Your task to perform on an android device: turn on javascript in the chrome app Image 0: 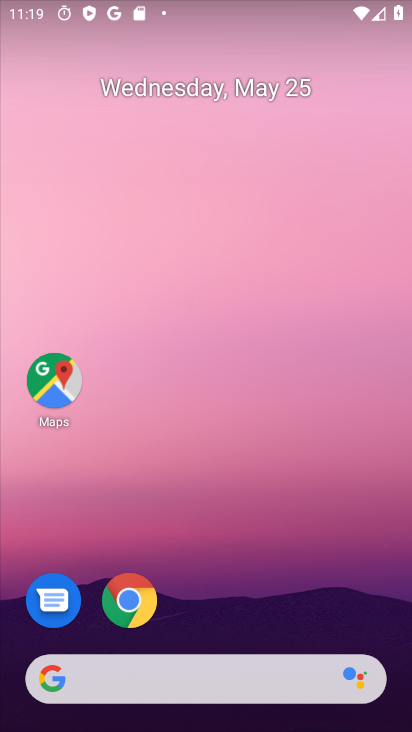
Step 0: drag from (198, 611) to (208, 73)
Your task to perform on an android device: turn on javascript in the chrome app Image 1: 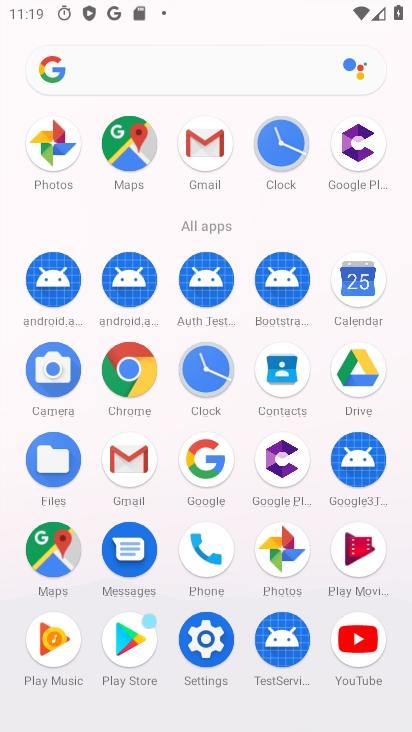
Step 1: click (120, 380)
Your task to perform on an android device: turn on javascript in the chrome app Image 2: 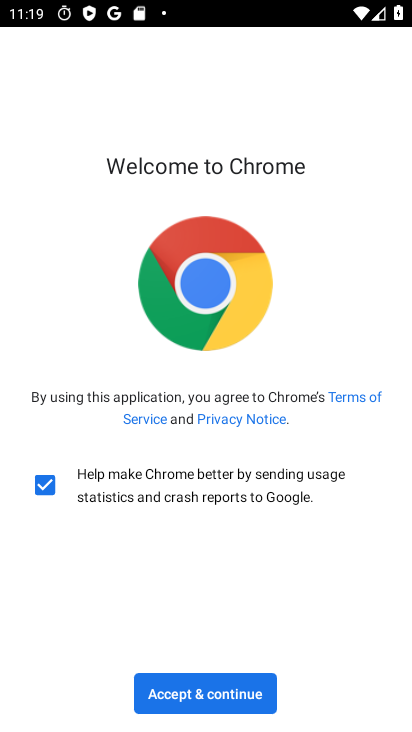
Step 2: click (263, 691)
Your task to perform on an android device: turn on javascript in the chrome app Image 3: 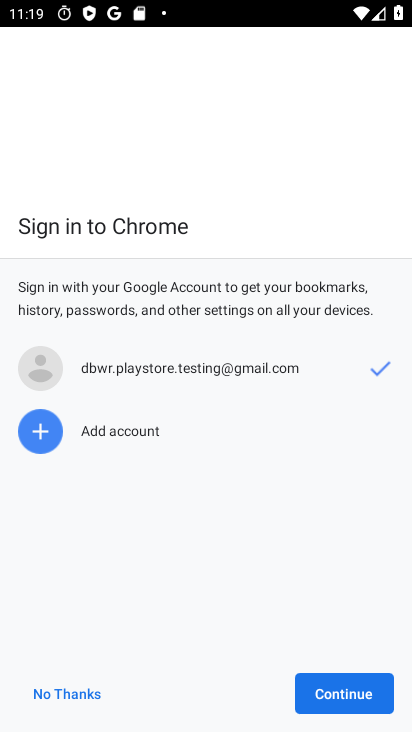
Step 3: click (359, 689)
Your task to perform on an android device: turn on javascript in the chrome app Image 4: 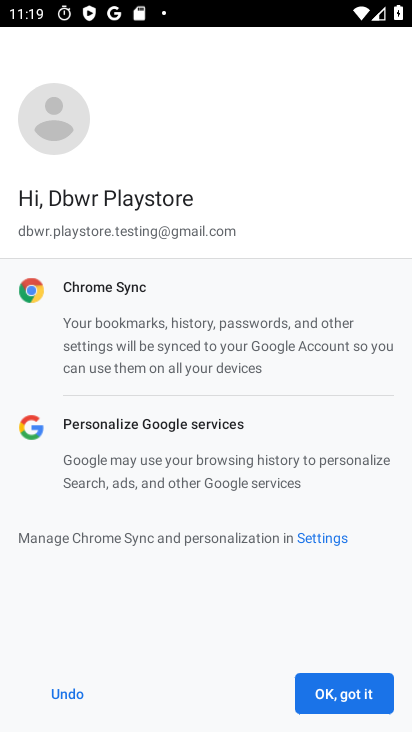
Step 4: click (359, 689)
Your task to perform on an android device: turn on javascript in the chrome app Image 5: 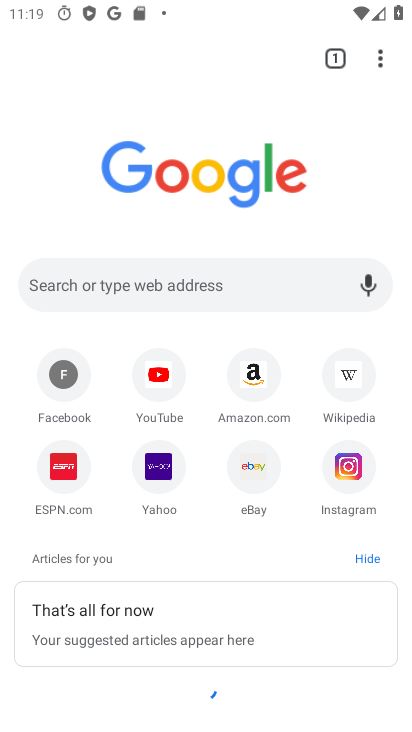
Step 5: click (382, 67)
Your task to perform on an android device: turn on javascript in the chrome app Image 6: 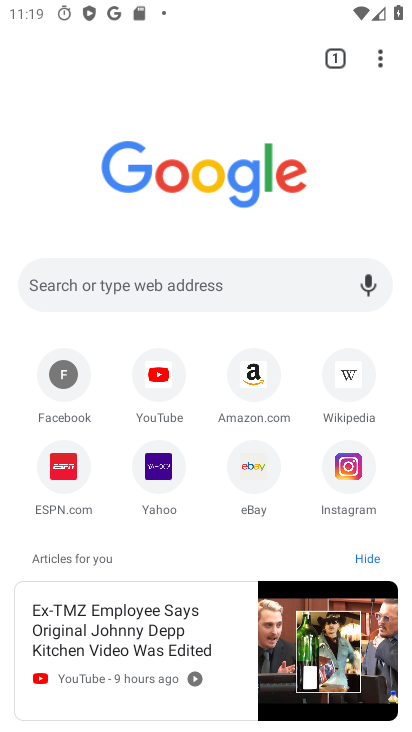
Step 6: click (377, 55)
Your task to perform on an android device: turn on javascript in the chrome app Image 7: 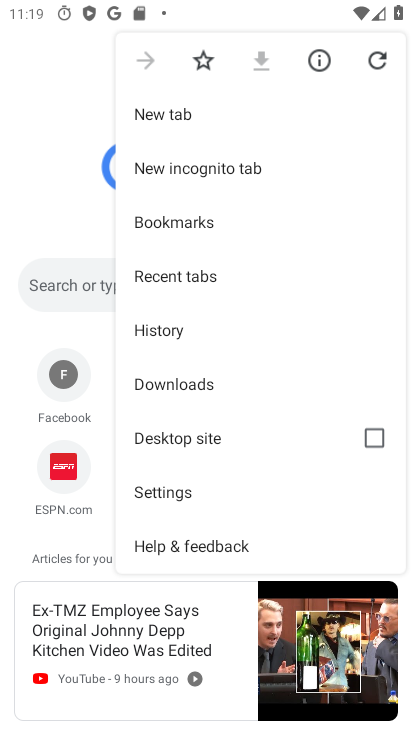
Step 7: click (183, 490)
Your task to perform on an android device: turn on javascript in the chrome app Image 8: 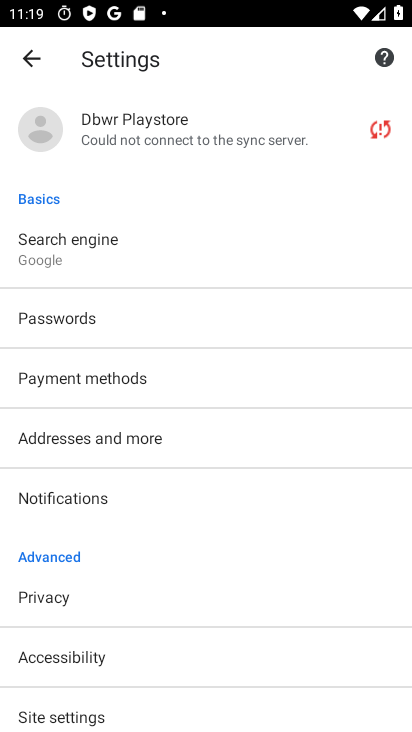
Step 8: drag from (118, 621) to (174, 363)
Your task to perform on an android device: turn on javascript in the chrome app Image 9: 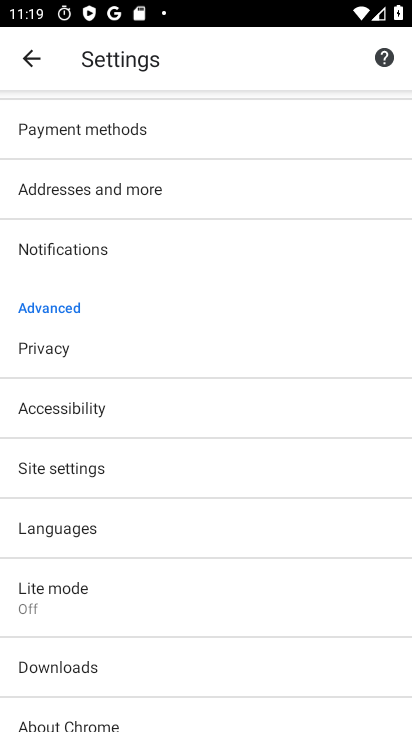
Step 9: click (104, 462)
Your task to perform on an android device: turn on javascript in the chrome app Image 10: 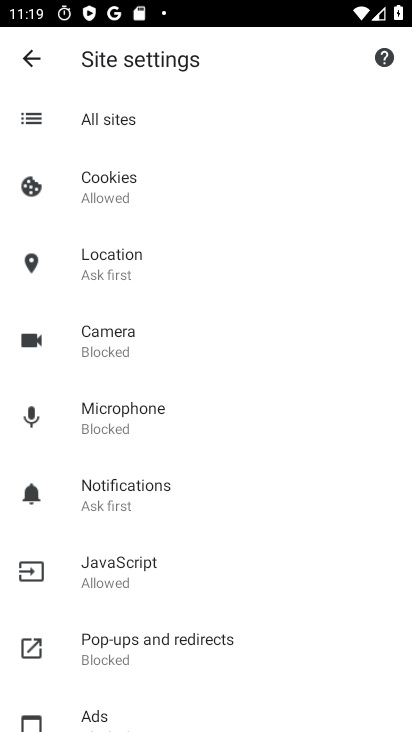
Step 10: click (148, 577)
Your task to perform on an android device: turn on javascript in the chrome app Image 11: 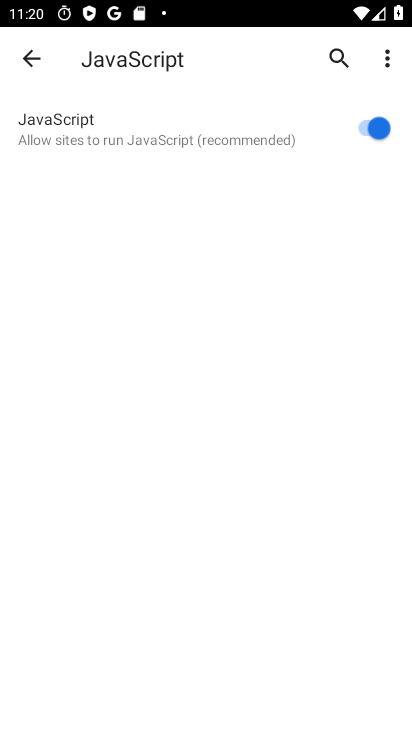
Step 11: task complete